Your task to perform on an android device: Turn on the flashlight Image 0: 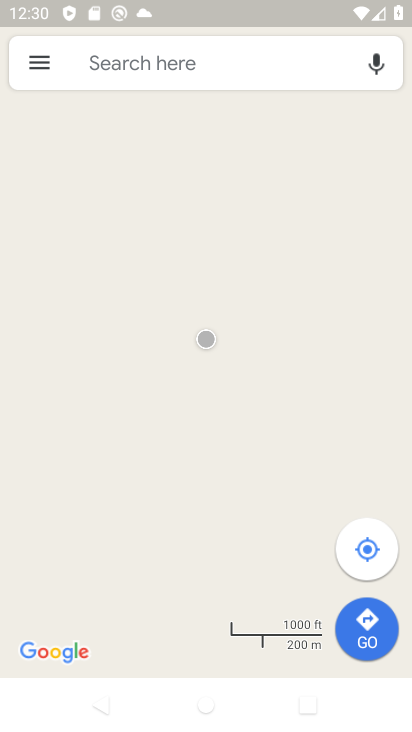
Step 0: press home button
Your task to perform on an android device: Turn on the flashlight Image 1: 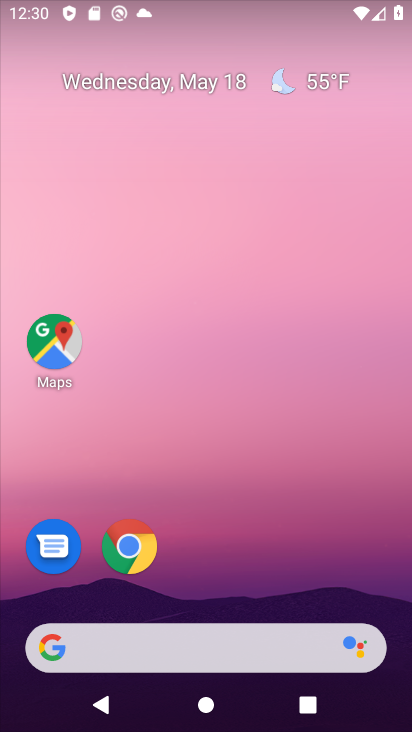
Step 1: drag from (339, 488) to (307, 132)
Your task to perform on an android device: Turn on the flashlight Image 2: 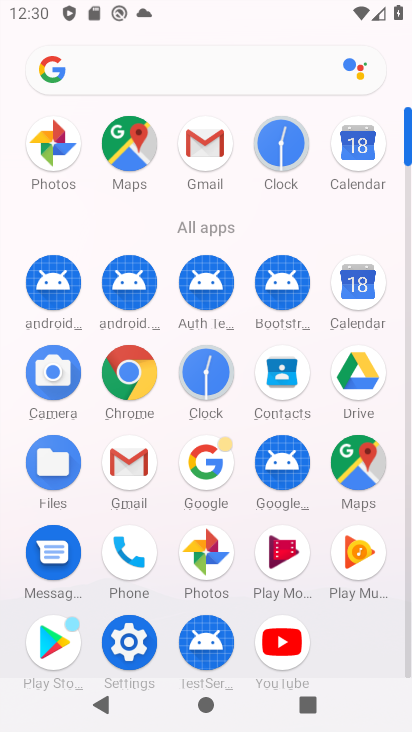
Step 2: click (131, 646)
Your task to perform on an android device: Turn on the flashlight Image 3: 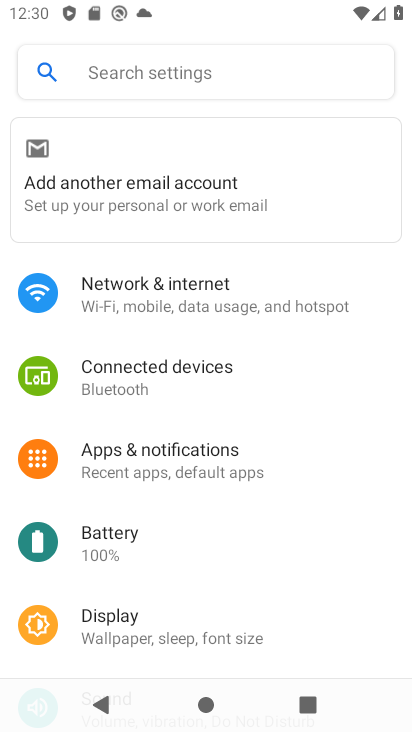
Step 3: click (226, 86)
Your task to perform on an android device: Turn on the flashlight Image 4: 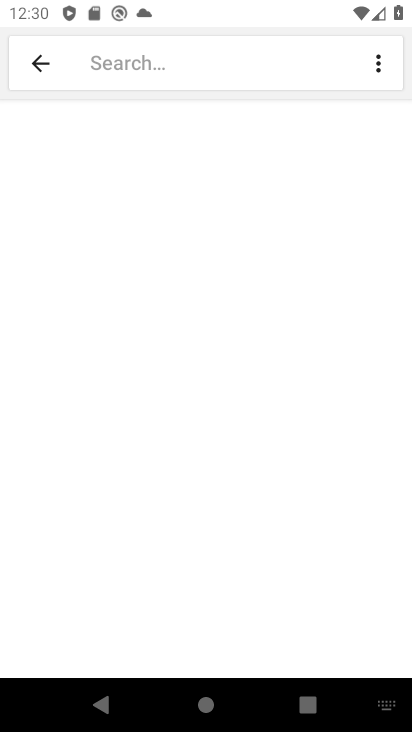
Step 4: type "flashlight"
Your task to perform on an android device: Turn on the flashlight Image 5: 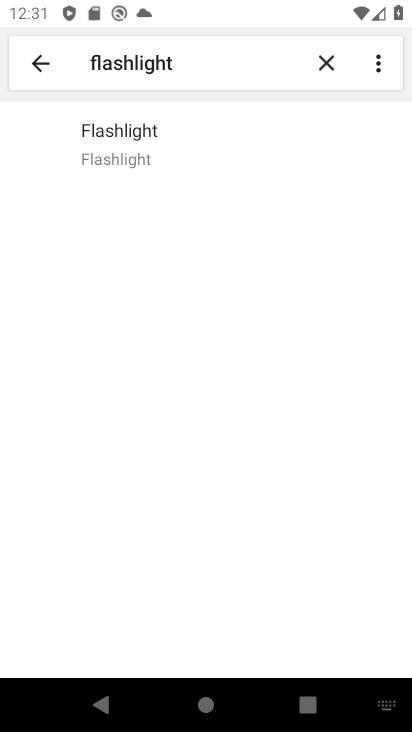
Step 5: click (159, 144)
Your task to perform on an android device: Turn on the flashlight Image 6: 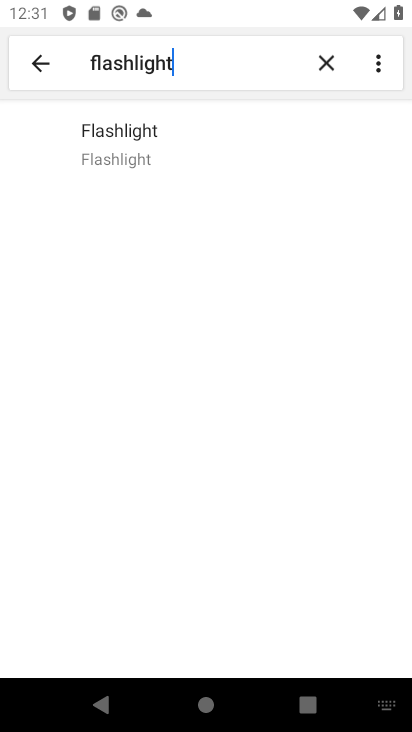
Step 6: task complete